Your task to perform on an android device: Open Reddit.com Image 0: 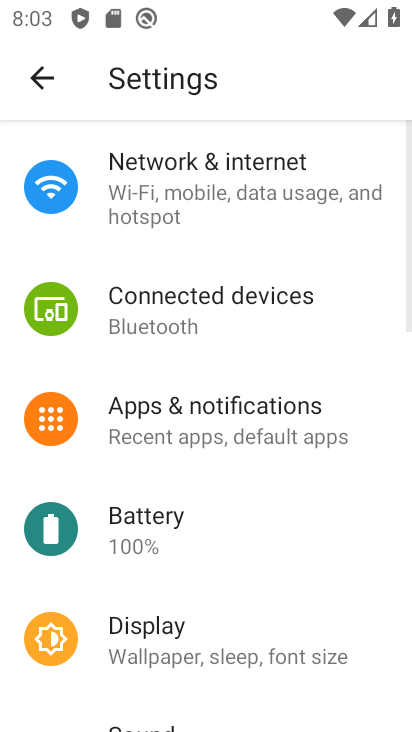
Step 0: press home button
Your task to perform on an android device: Open Reddit.com Image 1: 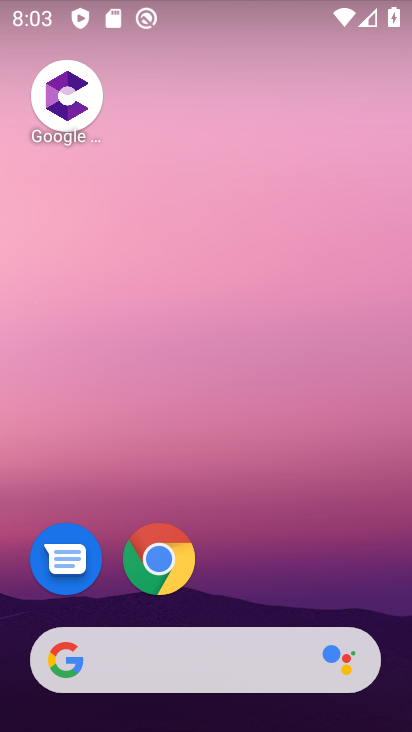
Step 1: drag from (373, 576) to (362, 115)
Your task to perform on an android device: Open Reddit.com Image 2: 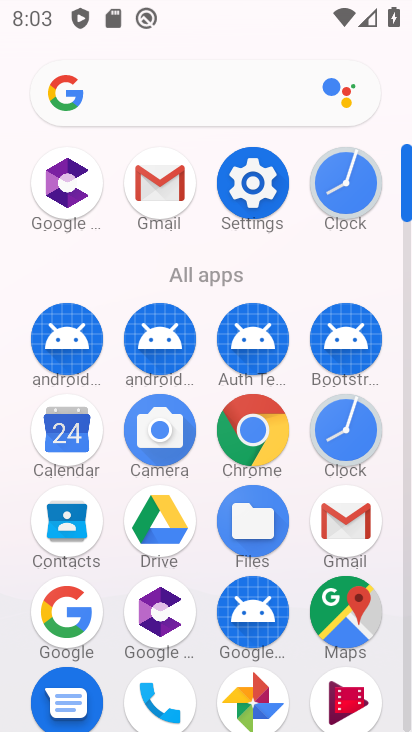
Step 2: click (261, 427)
Your task to perform on an android device: Open Reddit.com Image 3: 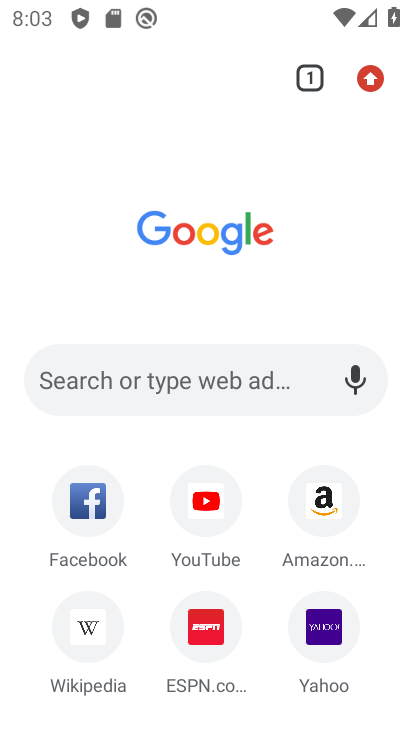
Step 3: click (244, 379)
Your task to perform on an android device: Open Reddit.com Image 4: 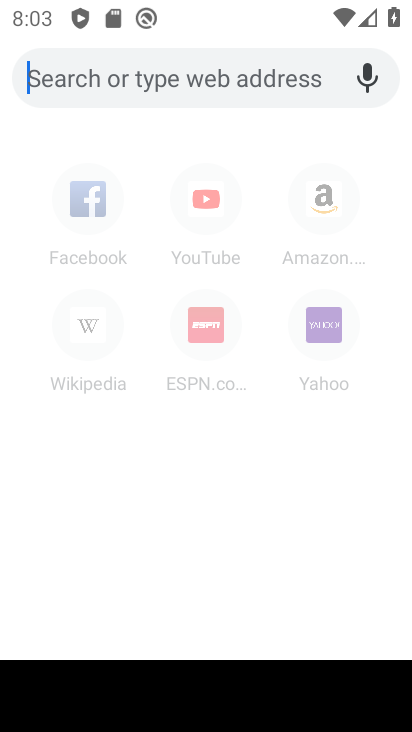
Step 4: type "reddit.com"
Your task to perform on an android device: Open Reddit.com Image 5: 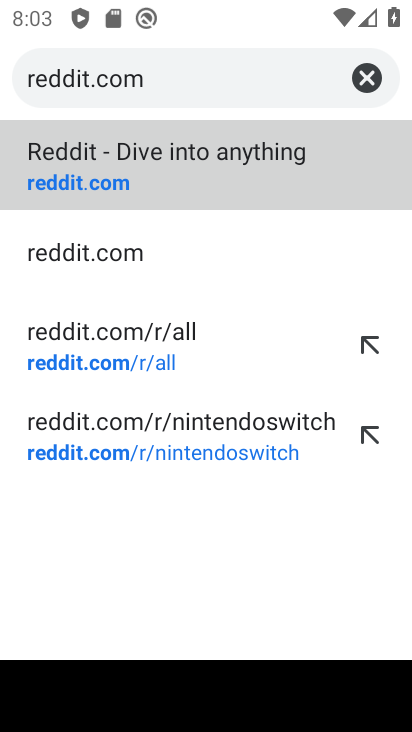
Step 5: click (367, 160)
Your task to perform on an android device: Open Reddit.com Image 6: 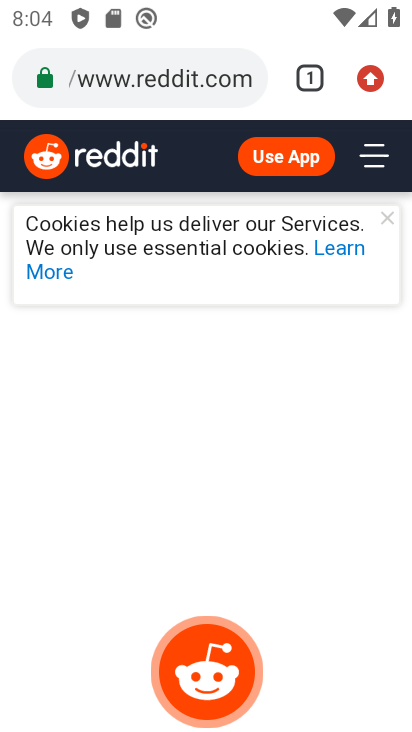
Step 6: task complete